Your task to perform on an android device: Go to notification settings Image 0: 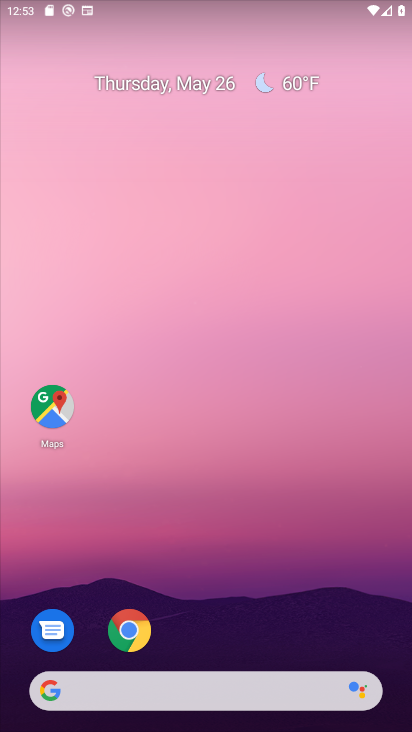
Step 0: drag from (345, 626) to (297, 17)
Your task to perform on an android device: Go to notification settings Image 1: 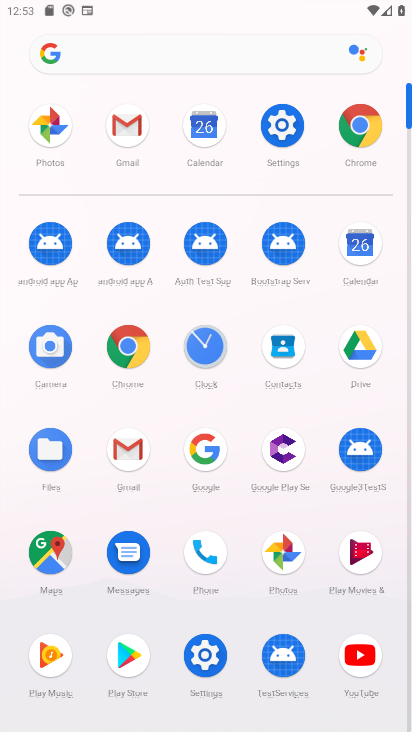
Step 1: click (275, 123)
Your task to perform on an android device: Go to notification settings Image 2: 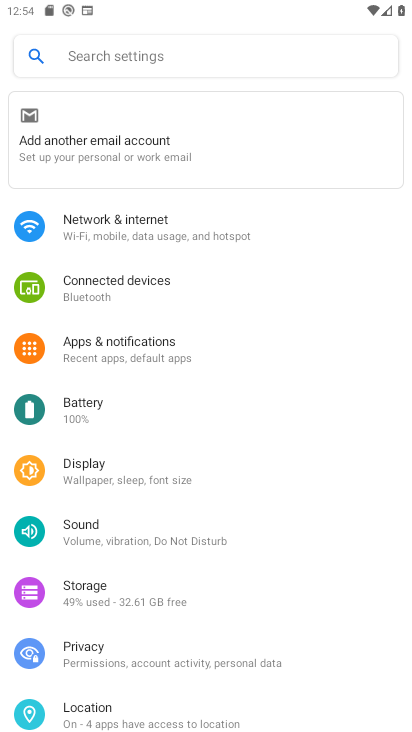
Step 2: drag from (268, 212) to (296, 636)
Your task to perform on an android device: Go to notification settings Image 3: 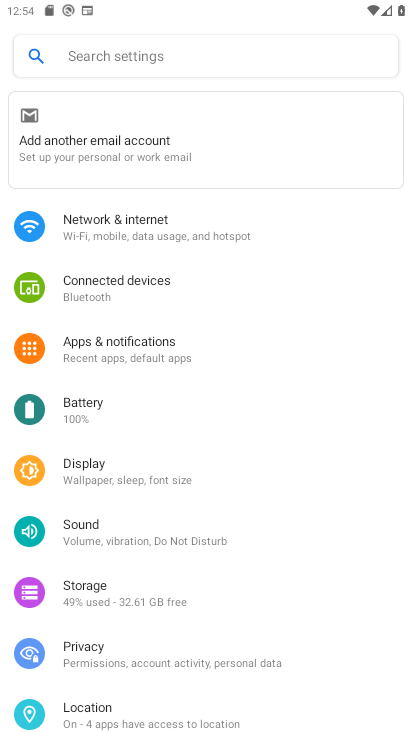
Step 3: click (152, 355)
Your task to perform on an android device: Go to notification settings Image 4: 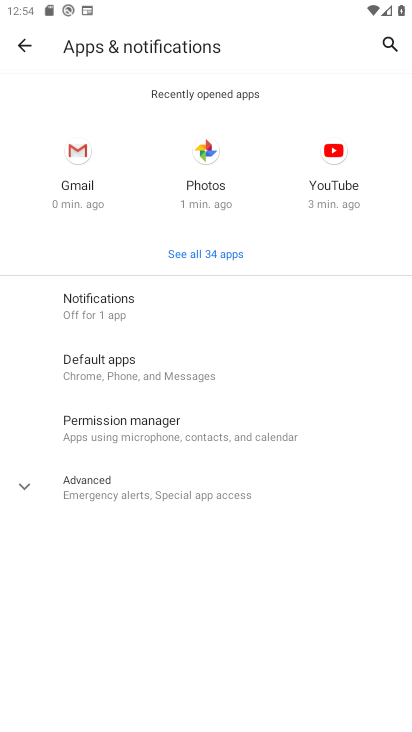
Step 4: click (110, 315)
Your task to perform on an android device: Go to notification settings Image 5: 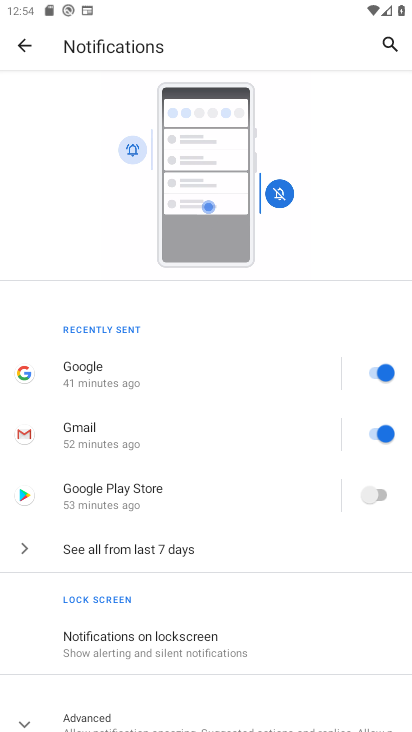
Step 5: task complete